Your task to perform on an android device: find which apps use the phone's location Image 0: 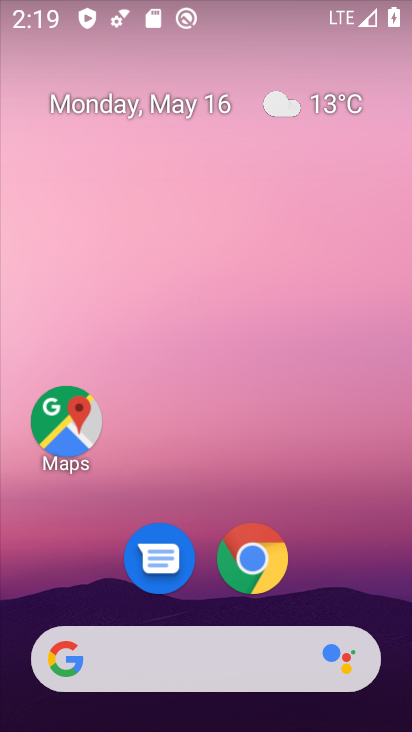
Step 0: drag from (180, 617) to (131, 39)
Your task to perform on an android device: find which apps use the phone's location Image 1: 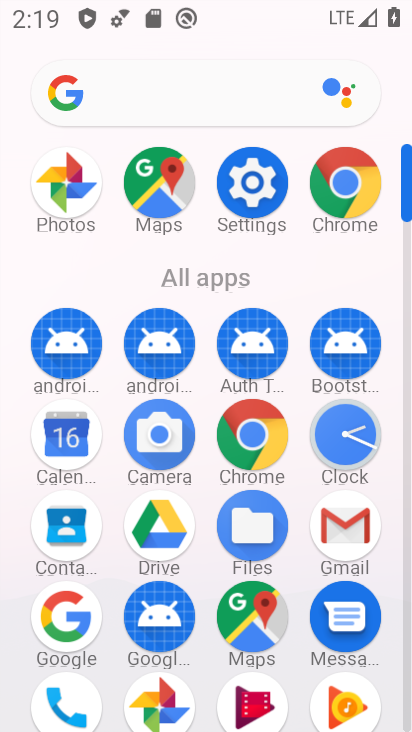
Step 1: click (234, 183)
Your task to perform on an android device: find which apps use the phone's location Image 2: 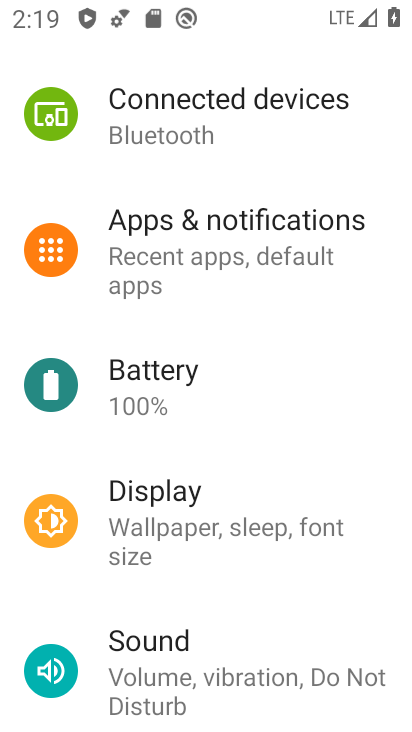
Step 2: drag from (191, 414) to (163, 117)
Your task to perform on an android device: find which apps use the phone's location Image 3: 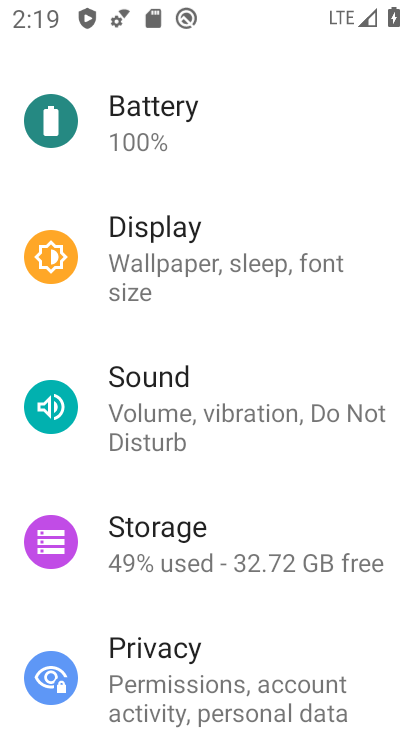
Step 3: drag from (180, 142) to (171, 726)
Your task to perform on an android device: find which apps use the phone's location Image 4: 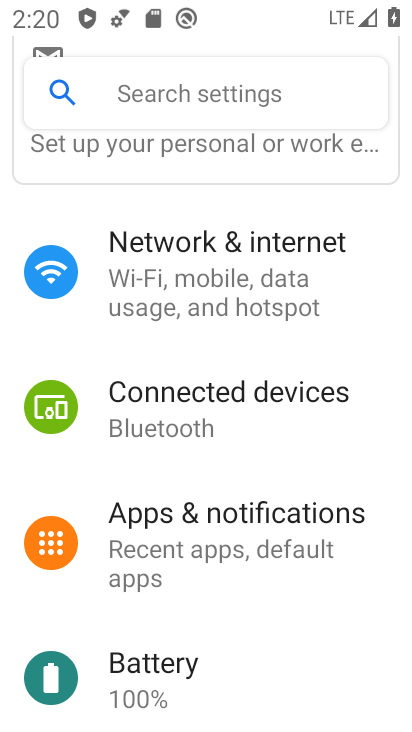
Step 4: click (198, 543)
Your task to perform on an android device: find which apps use the phone's location Image 5: 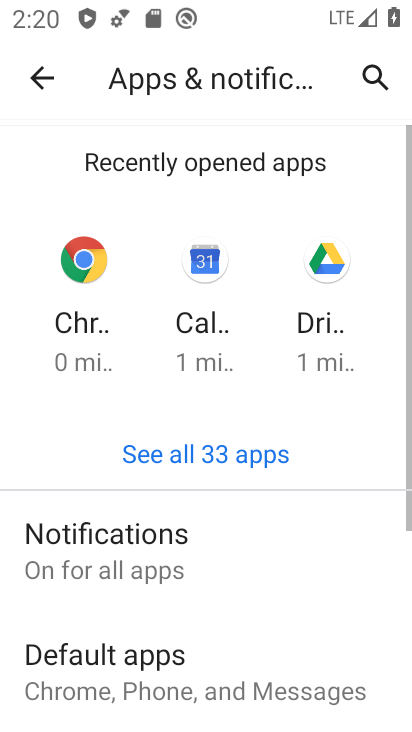
Step 5: drag from (147, 624) to (118, 107)
Your task to perform on an android device: find which apps use the phone's location Image 6: 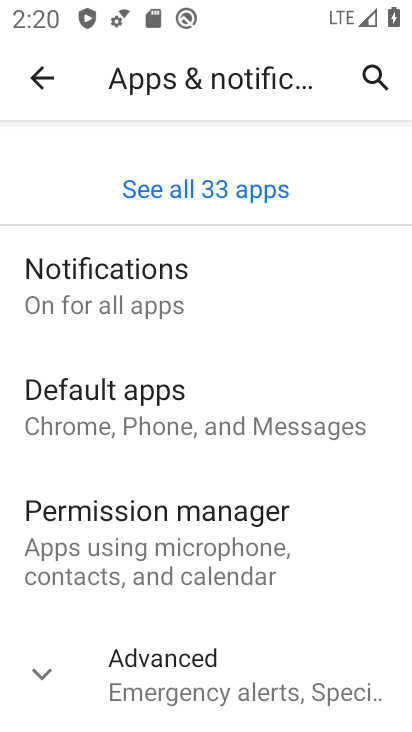
Step 6: click (142, 404)
Your task to perform on an android device: find which apps use the phone's location Image 7: 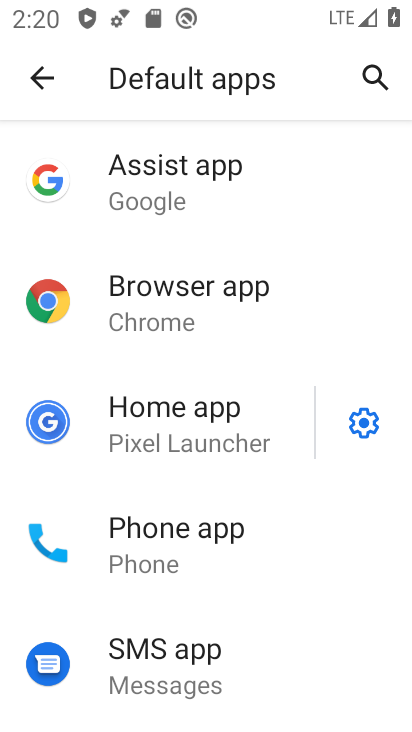
Step 7: click (43, 95)
Your task to perform on an android device: find which apps use the phone's location Image 8: 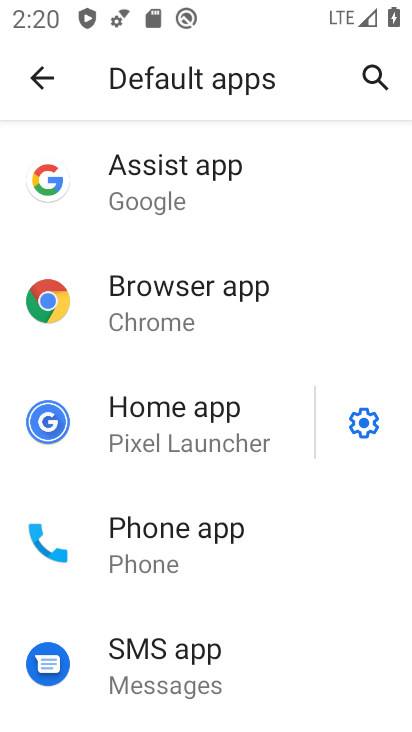
Step 8: click (43, 95)
Your task to perform on an android device: find which apps use the phone's location Image 9: 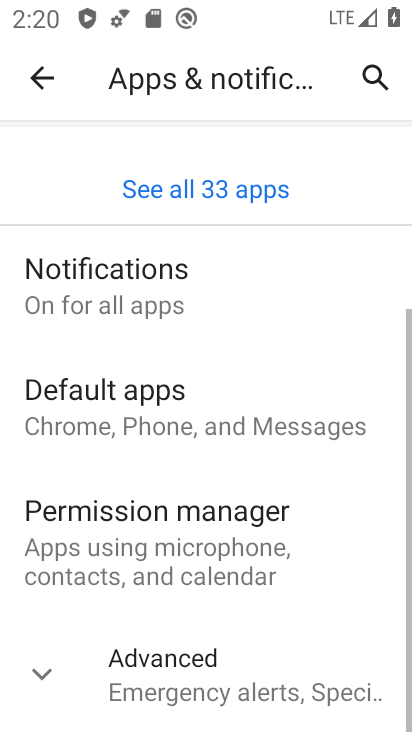
Step 9: task complete